Your task to perform on an android device: Go to calendar. Show me events next week Image 0: 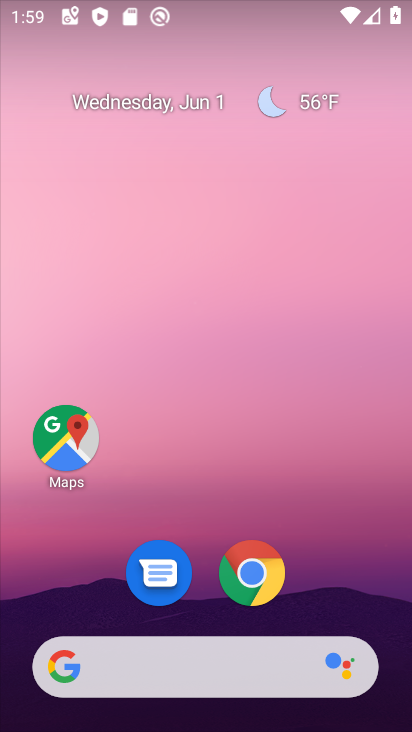
Step 0: drag from (345, 508) to (281, 13)
Your task to perform on an android device: Go to calendar. Show me events next week Image 1: 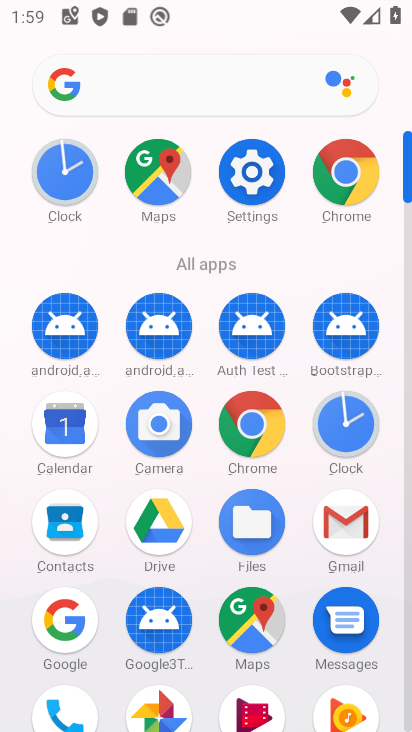
Step 1: click (26, 435)
Your task to perform on an android device: Go to calendar. Show me events next week Image 2: 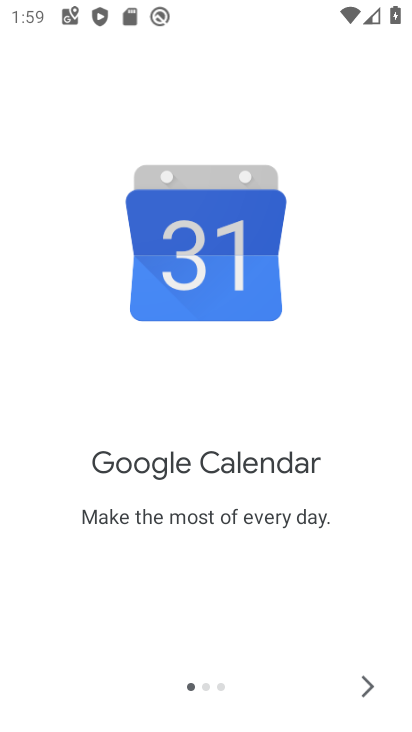
Step 2: click (374, 693)
Your task to perform on an android device: Go to calendar. Show me events next week Image 3: 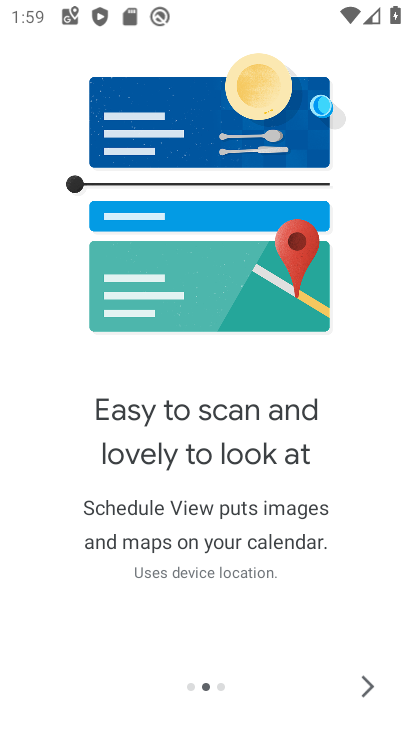
Step 3: click (358, 697)
Your task to perform on an android device: Go to calendar. Show me events next week Image 4: 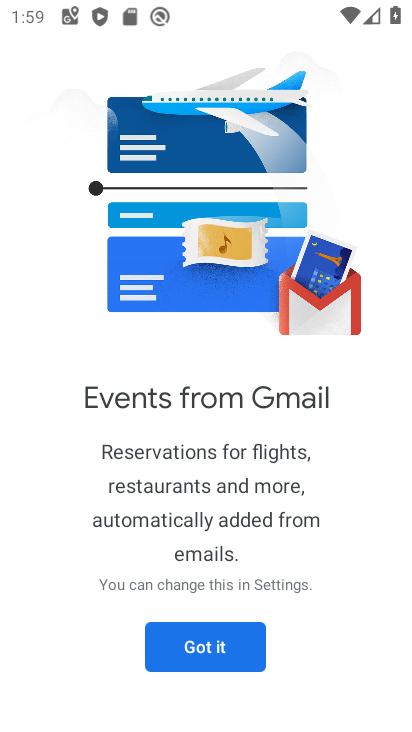
Step 4: click (235, 654)
Your task to perform on an android device: Go to calendar. Show me events next week Image 5: 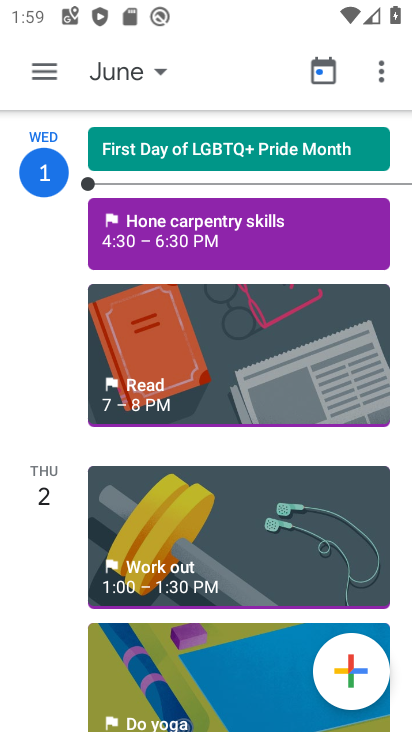
Step 5: click (123, 69)
Your task to perform on an android device: Go to calendar. Show me events next week Image 6: 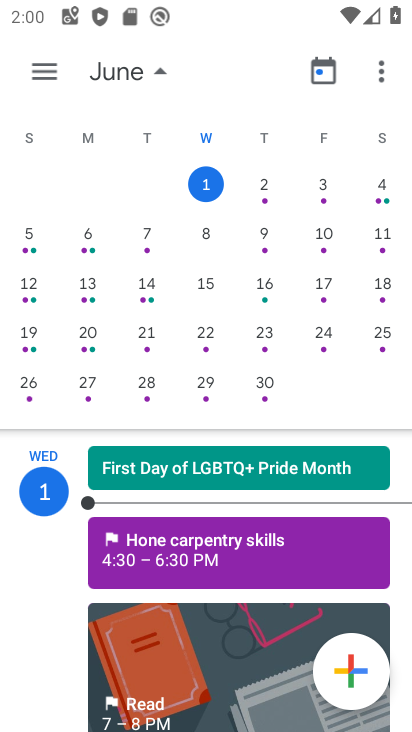
Step 6: click (202, 236)
Your task to perform on an android device: Go to calendar. Show me events next week Image 7: 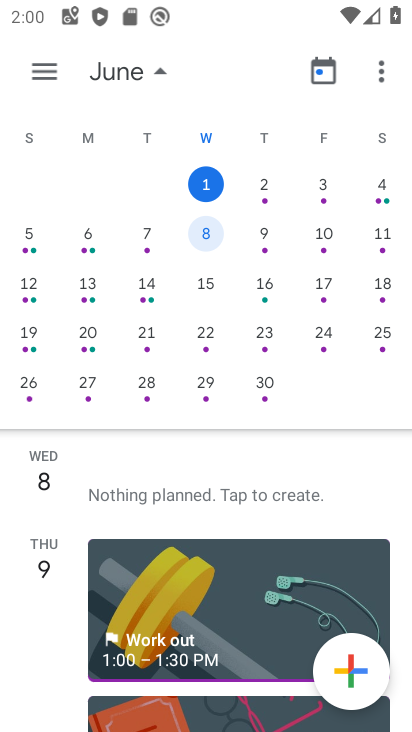
Step 7: click (160, 240)
Your task to perform on an android device: Go to calendar. Show me events next week Image 8: 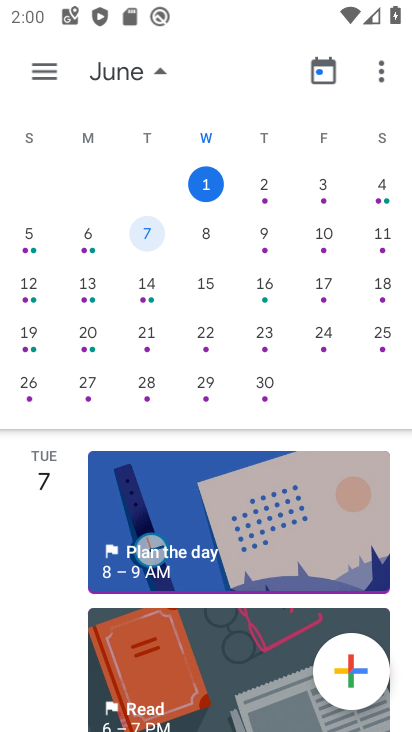
Step 8: task complete